Your task to perform on an android device: all mails in gmail Image 0: 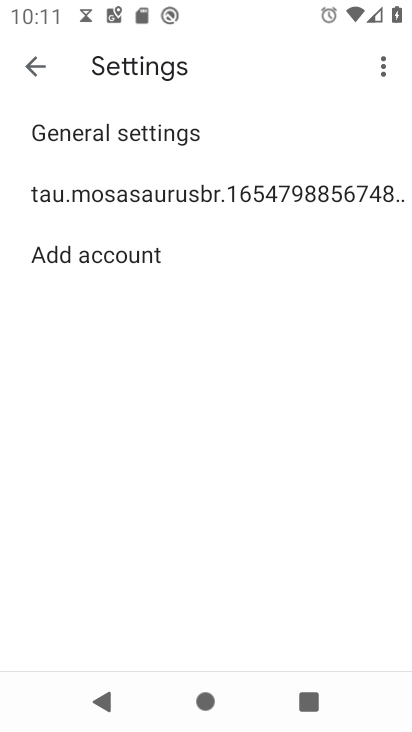
Step 0: press home button
Your task to perform on an android device: all mails in gmail Image 1: 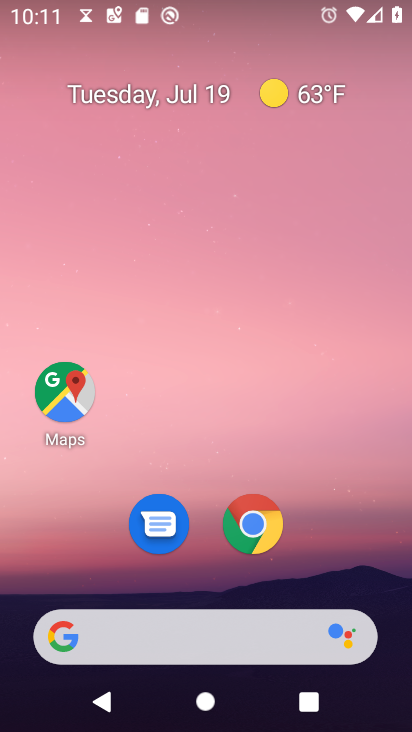
Step 1: drag from (207, 594) to (340, 92)
Your task to perform on an android device: all mails in gmail Image 2: 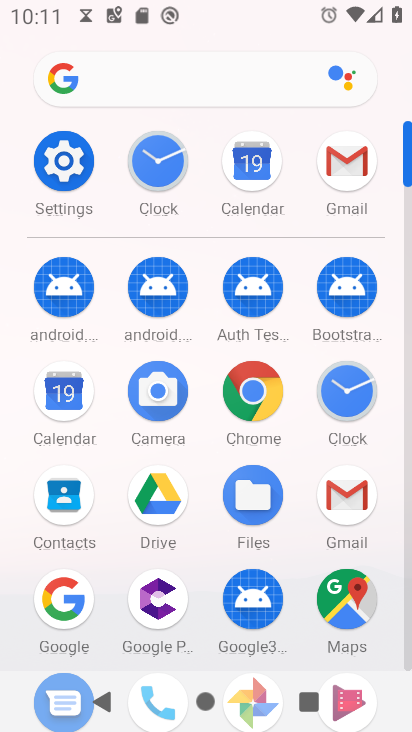
Step 2: click (347, 170)
Your task to perform on an android device: all mails in gmail Image 3: 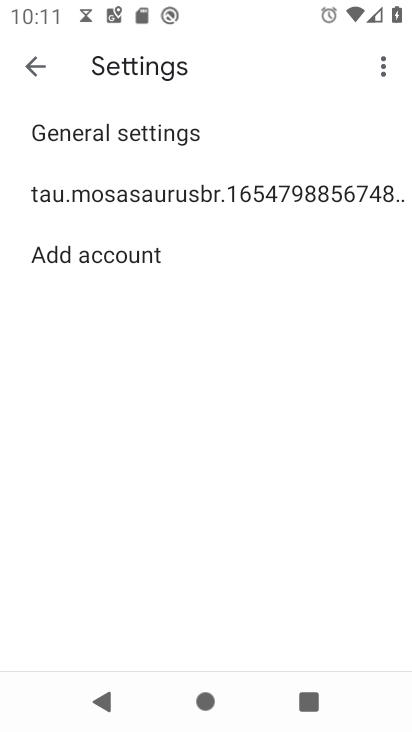
Step 3: click (269, 184)
Your task to perform on an android device: all mails in gmail Image 4: 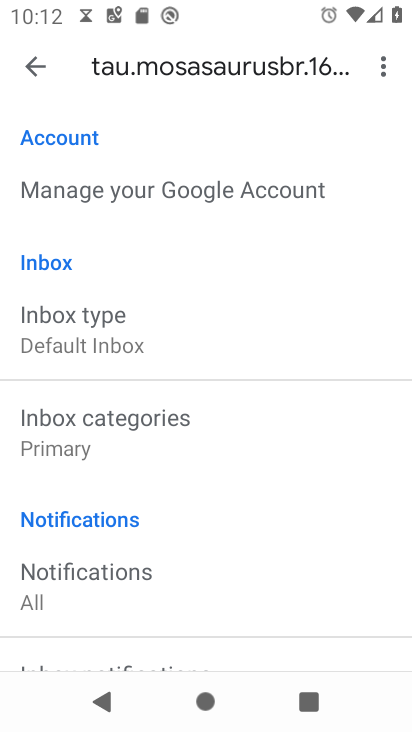
Step 4: click (38, 62)
Your task to perform on an android device: all mails in gmail Image 5: 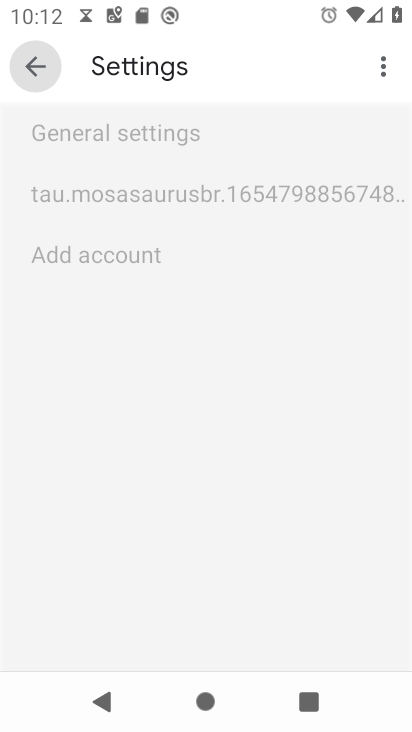
Step 5: click (38, 63)
Your task to perform on an android device: all mails in gmail Image 6: 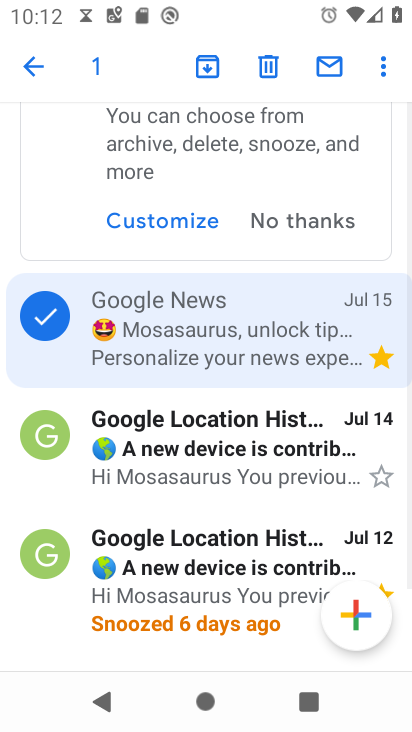
Step 6: click (38, 62)
Your task to perform on an android device: all mails in gmail Image 7: 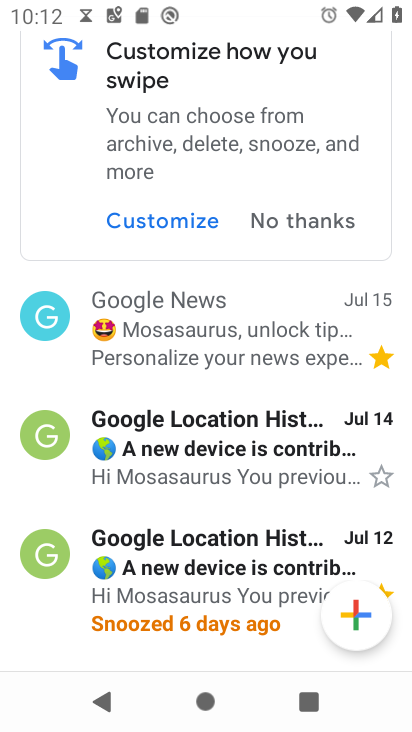
Step 7: drag from (73, 185) to (124, 553)
Your task to perform on an android device: all mails in gmail Image 8: 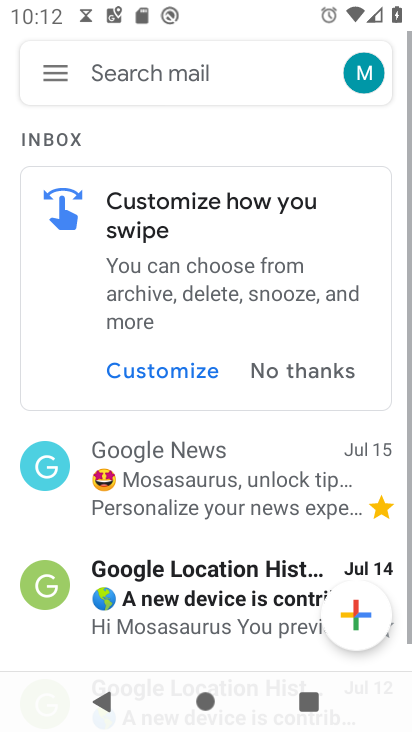
Step 8: click (62, 74)
Your task to perform on an android device: all mails in gmail Image 9: 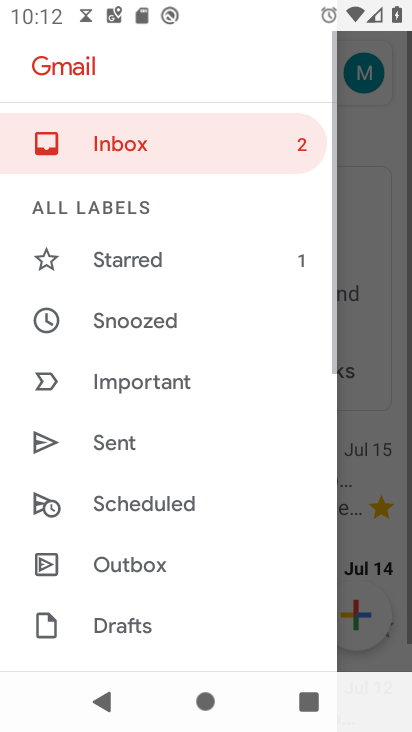
Step 9: drag from (170, 567) to (210, 167)
Your task to perform on an android device: all mails in gmail Image 10: 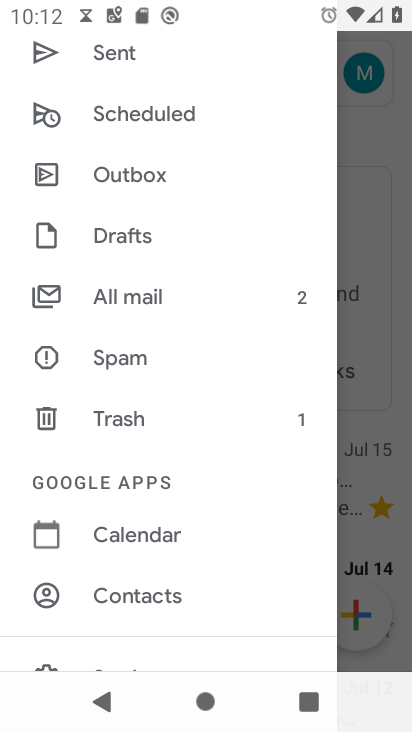
Step 10: click (149, 299)
Your task to perform on an android device: all mails in gmail Image 11: 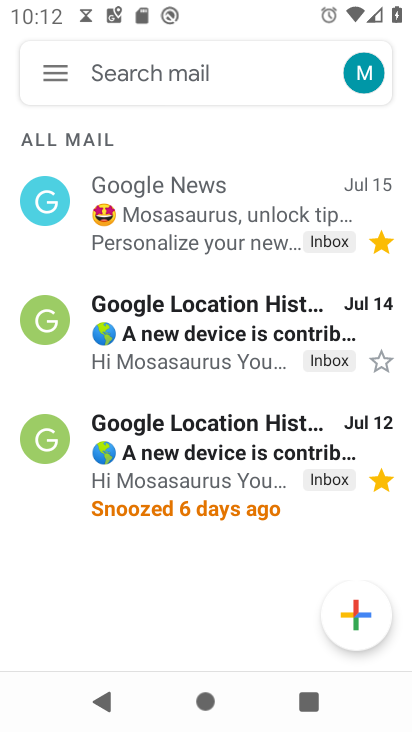
Step 11: task complete